Your task to perform on an android device: search for starred emails in the gmail app Image 0: 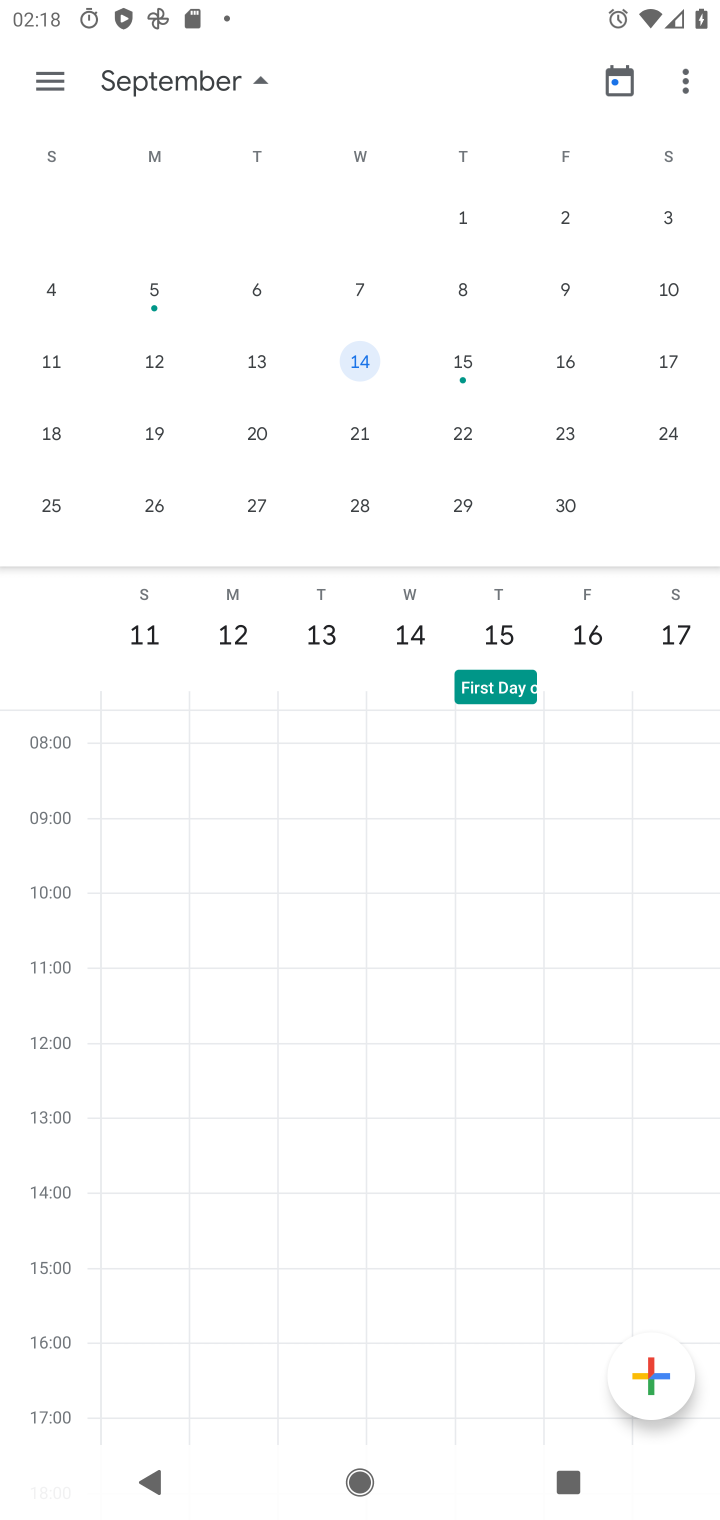
Step 0: click (276, 1370)
Your task to perform on an android device: search for starred emails in the gmail app Image 1: 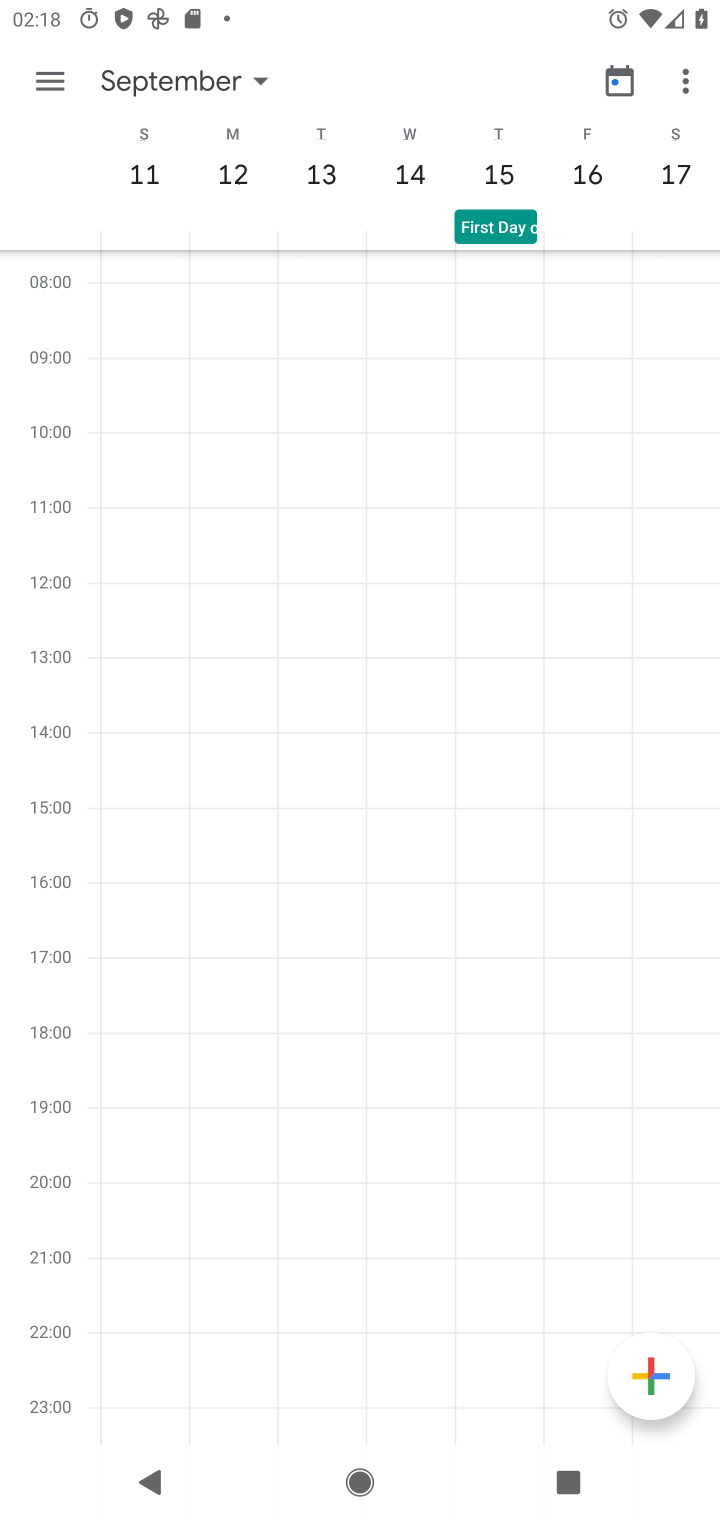
Step 1: press home button
Your task to perform on an android device: search for starred emails in the gmail app Image 2: 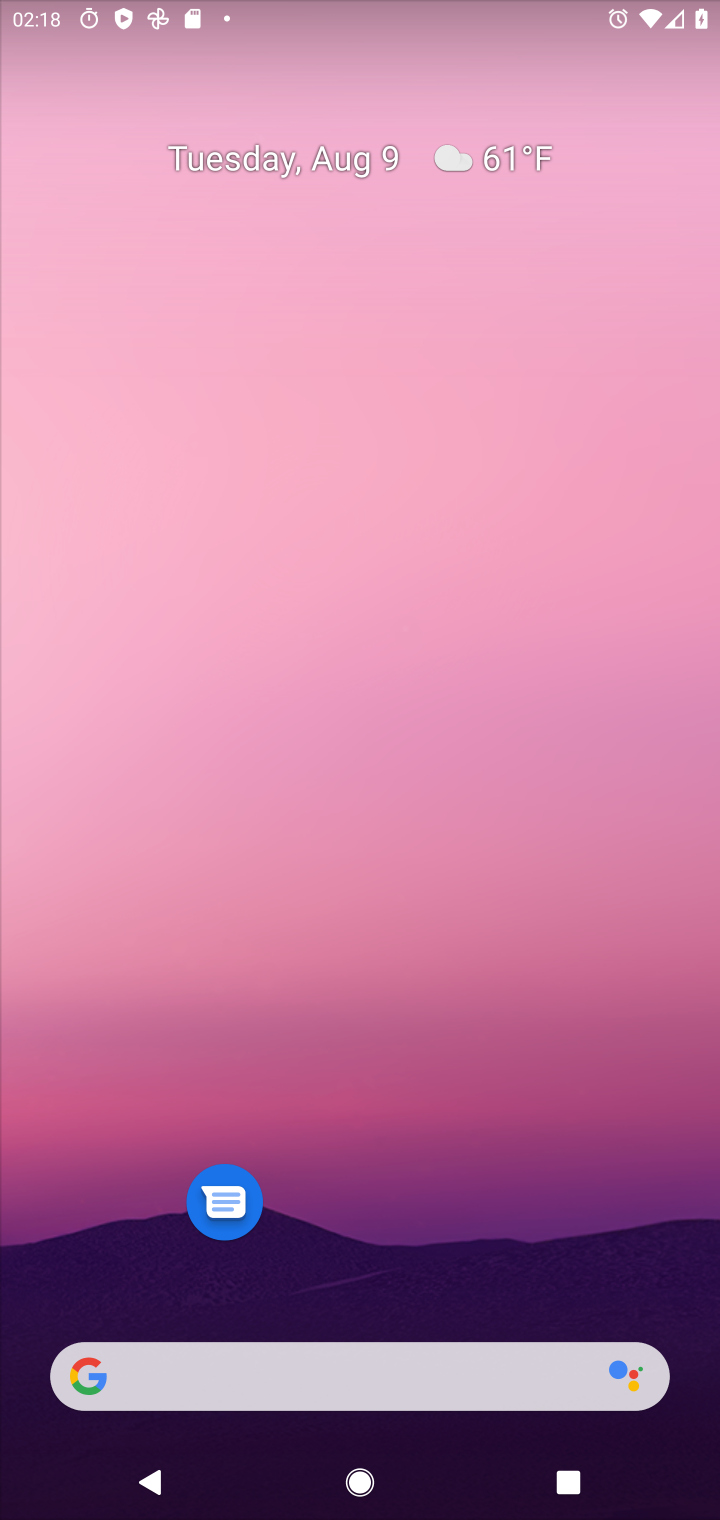
Step 2: drag from (396, 1353) to (394, 287)
Your task to perform on an android device: search for starred emails in the gmail app Image 3: 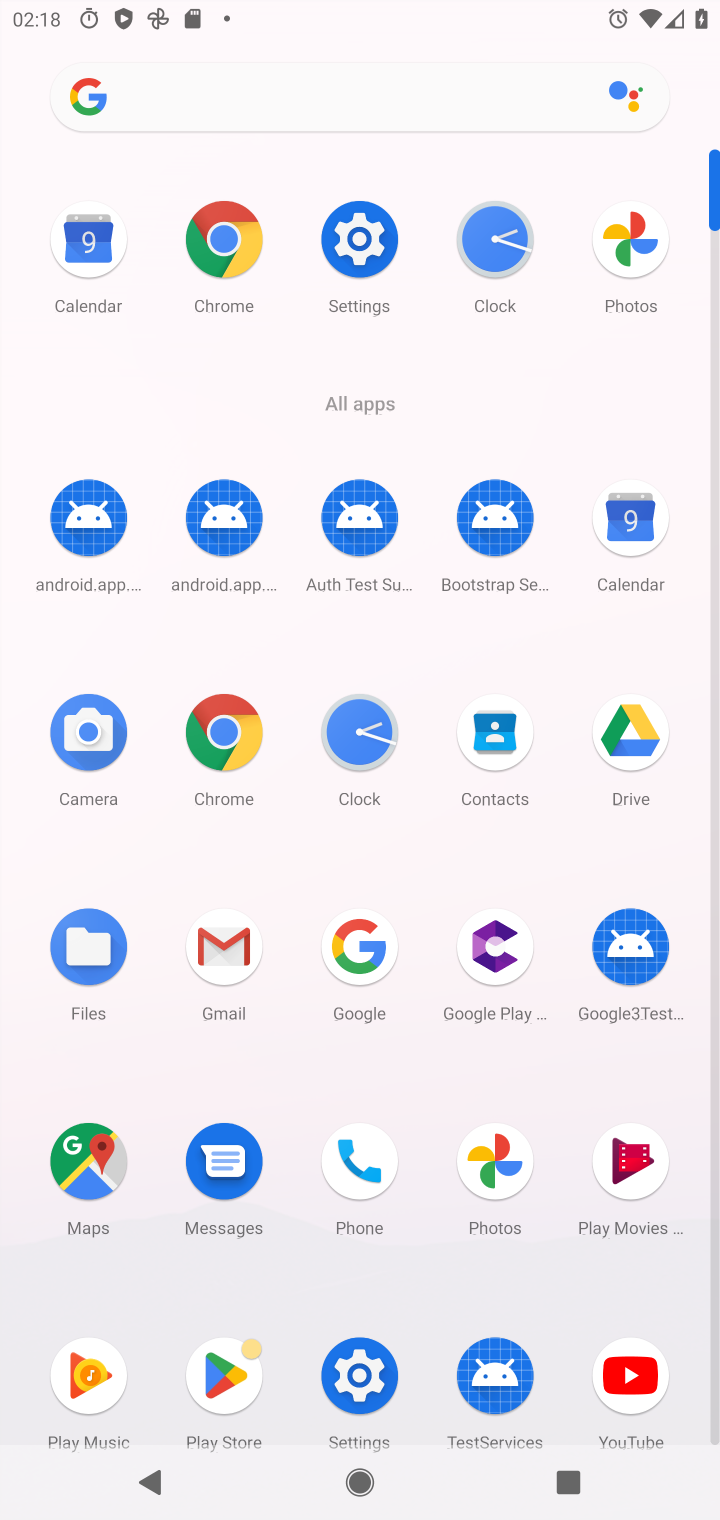
Step 3: click (222, 928)
Your task to perform on an android device: search for starred emails in the gmail app Image 4: 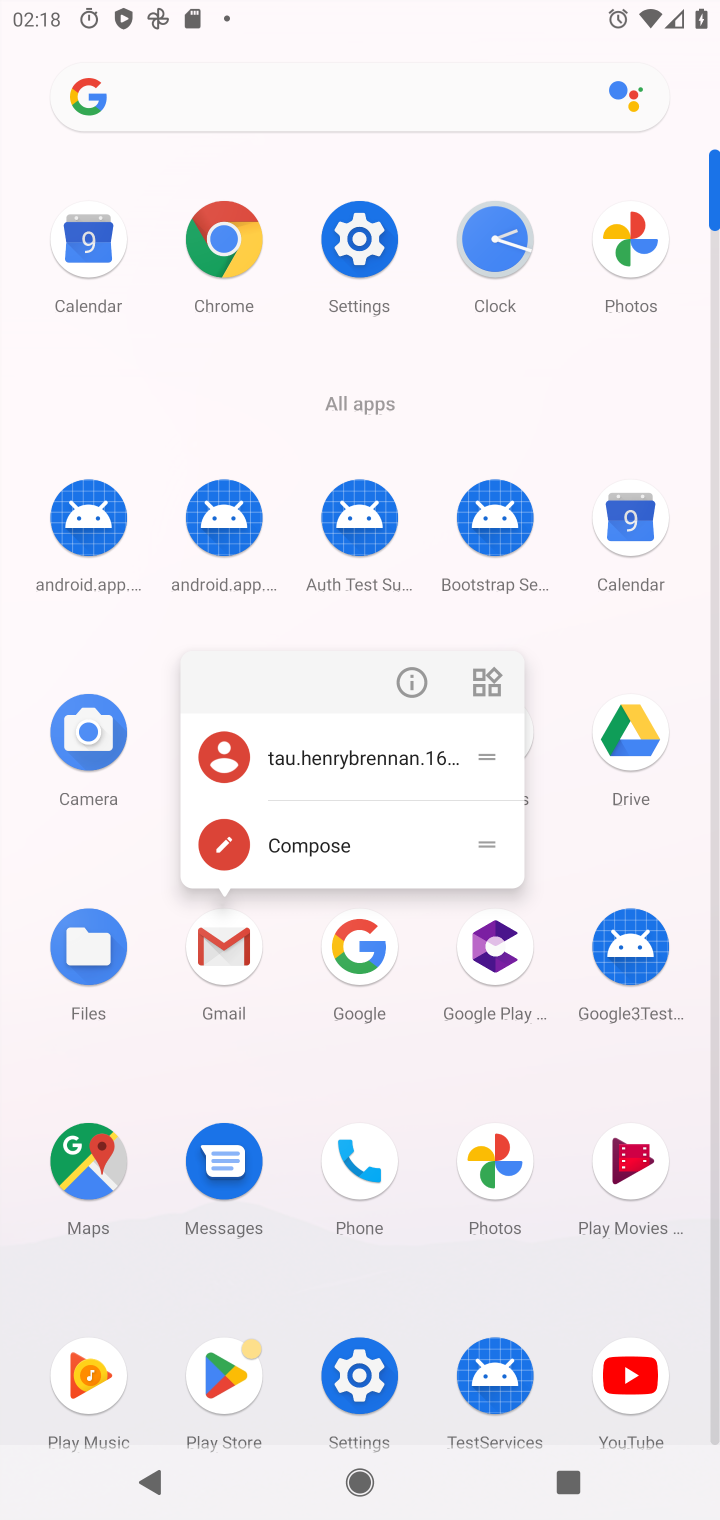
Step 4: click (222, 928)
Your task to perform on an android device: search for starred emails in the gmail app Image 5: 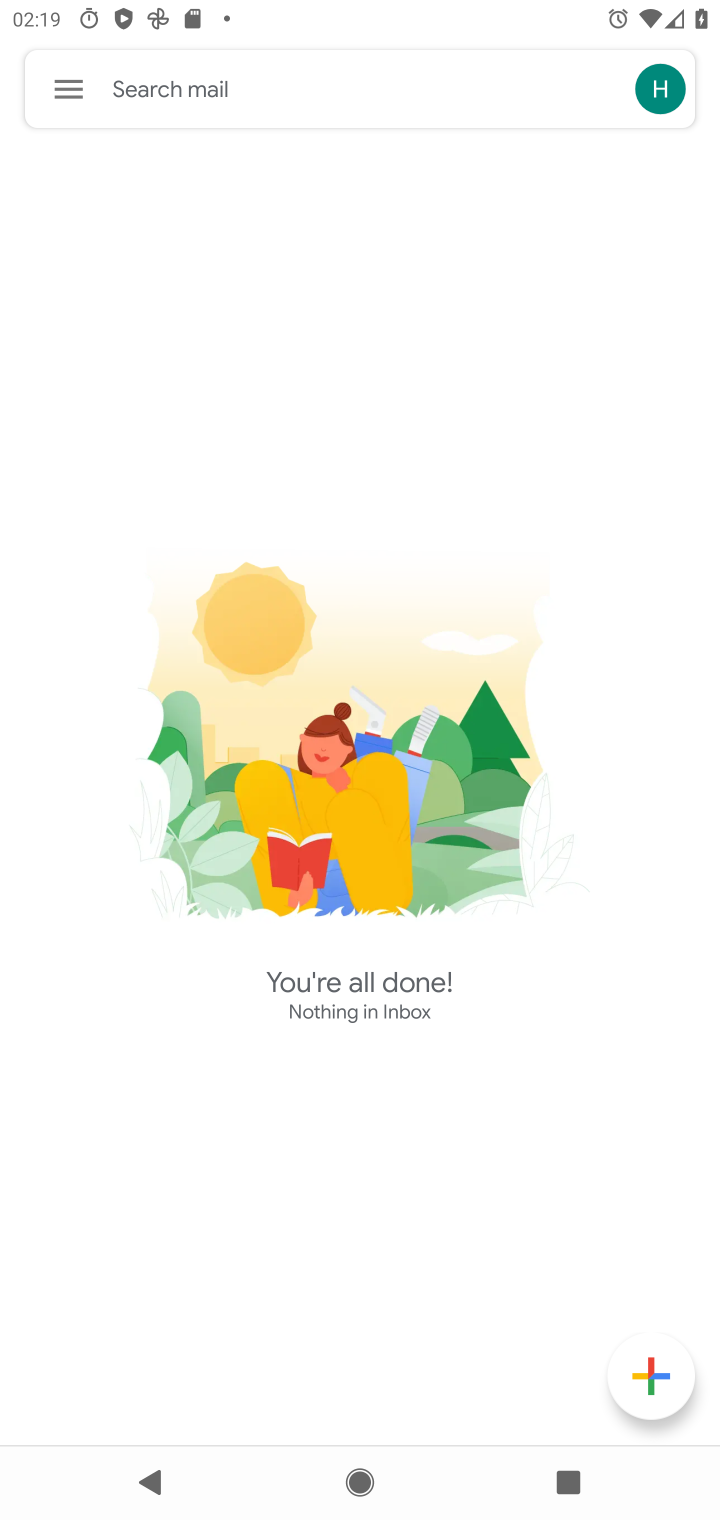
Step 5: click (68, 70)
Your task to perform on an android device: search for starred emails in the gmail app Image 6: 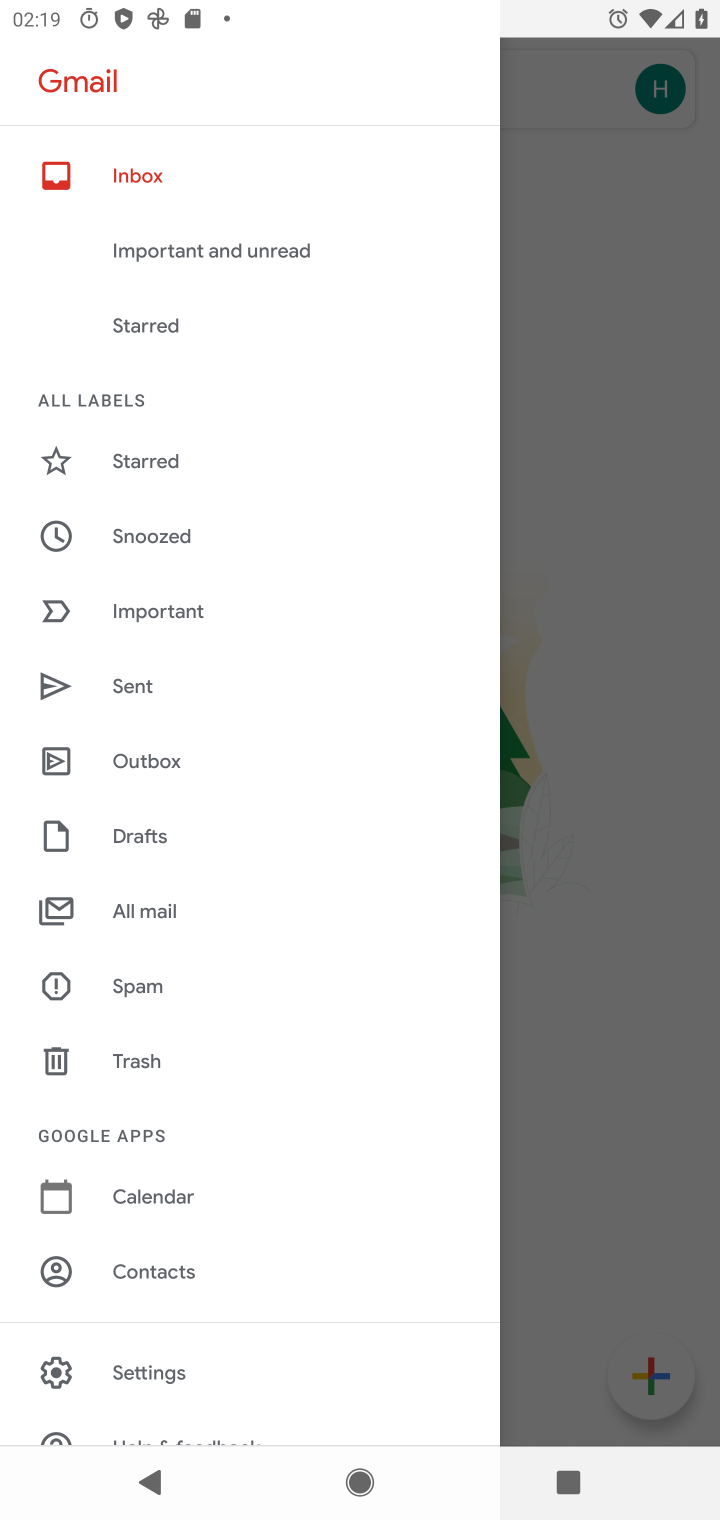
Step 6: click (117, 456)
Your task to perform on an android device: search for starred emails in the gmail app Image 7: 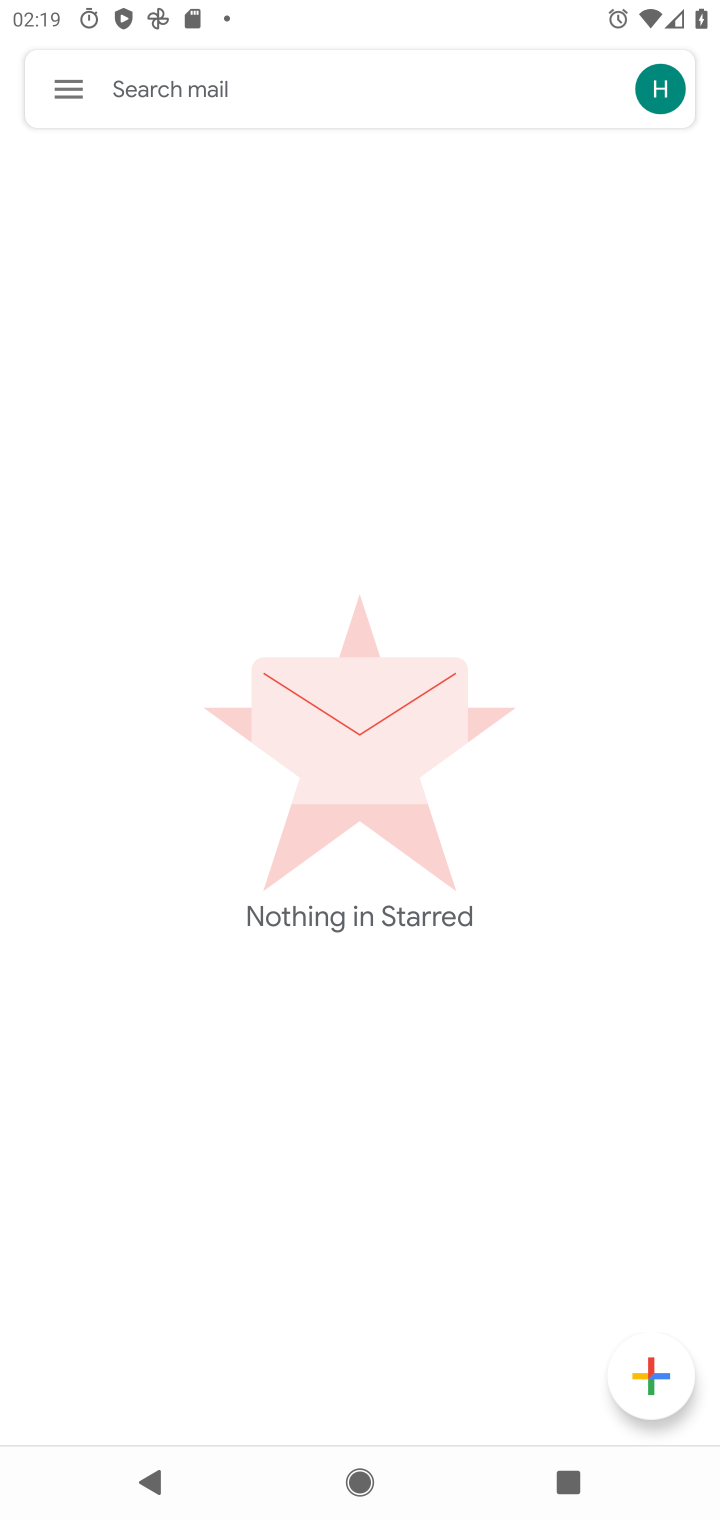
Step 7: task complete